Your task to perform on an android device: turn off wifi Image 0: 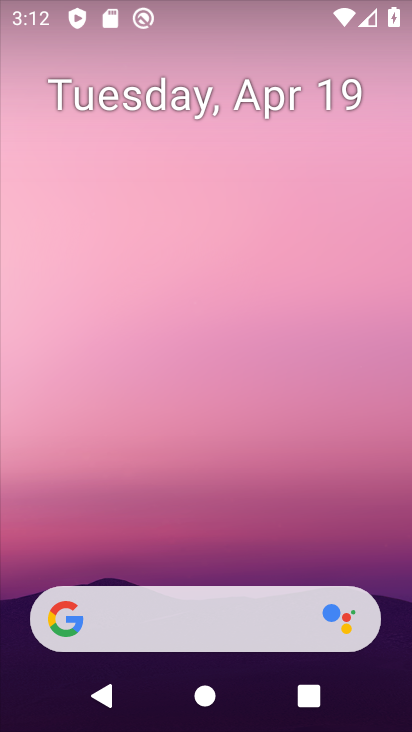
Step 0: drag from (235, 550) to (238, 57)
Your task to perform on an android device: turn off wifi Image 1: 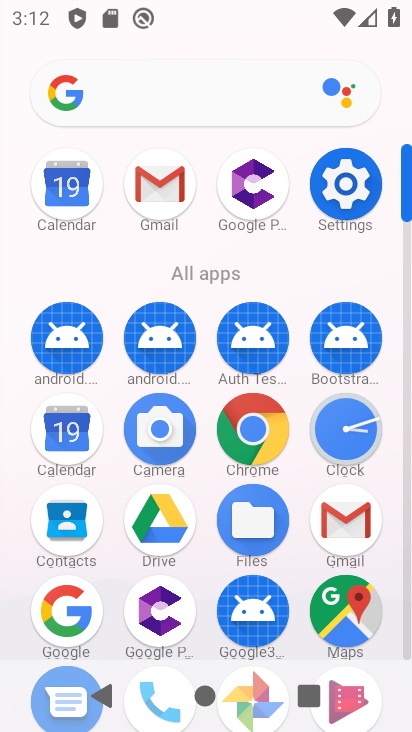
Step 1: click (344, 184)
Your task to perform on an android device: turn off wifi Image 2: 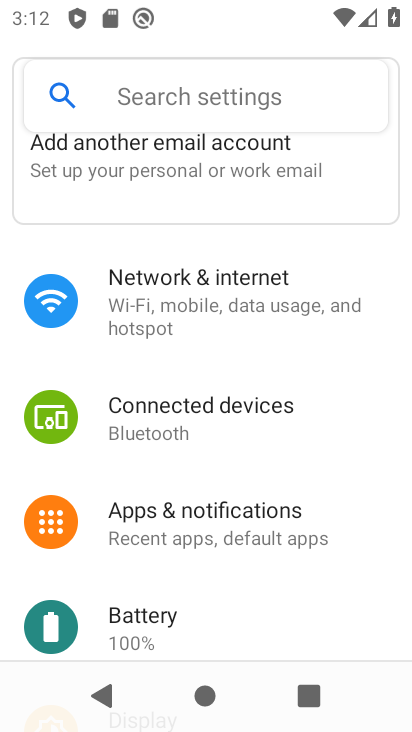
Step 2: click (244, 276)
Your task to perform on an android device: turn off wifi Image 3: 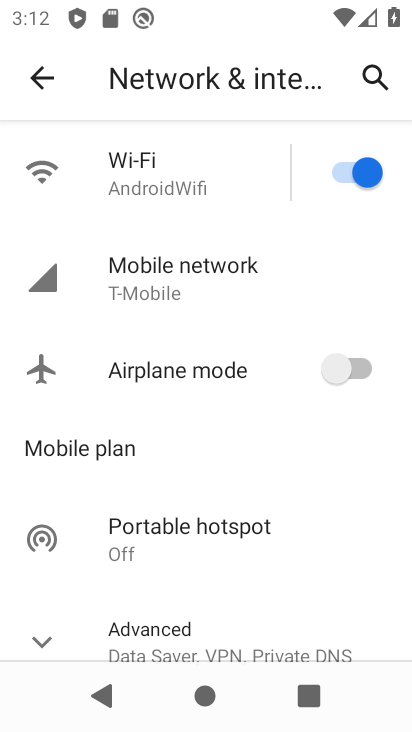
Step 3: click (362, 173)
Your task to perform on an android device: turn off wifi Image 4: 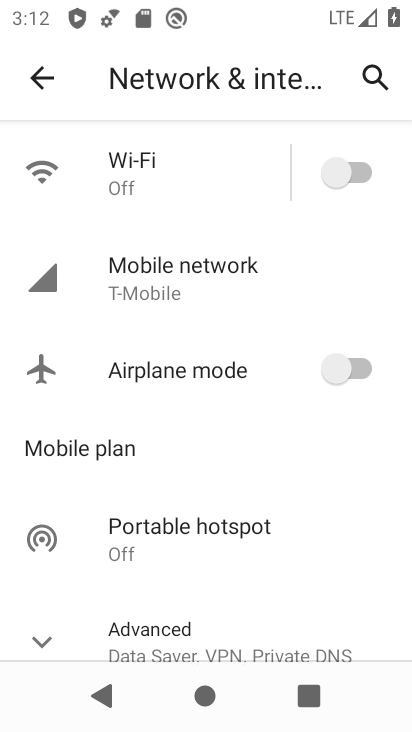
Step 4: task complete